Your task to perform on an android device: refresh tabs in the chrome app Image 0: 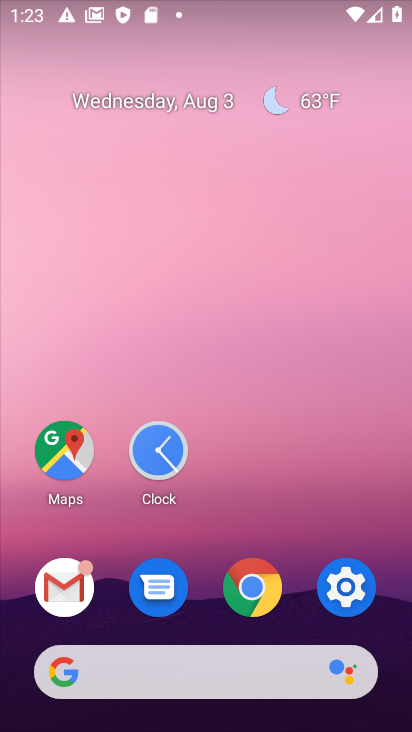
Step 0: click (250, 588)
Your task to perform on an android device: refresh tabs in the chrome app Image 1: 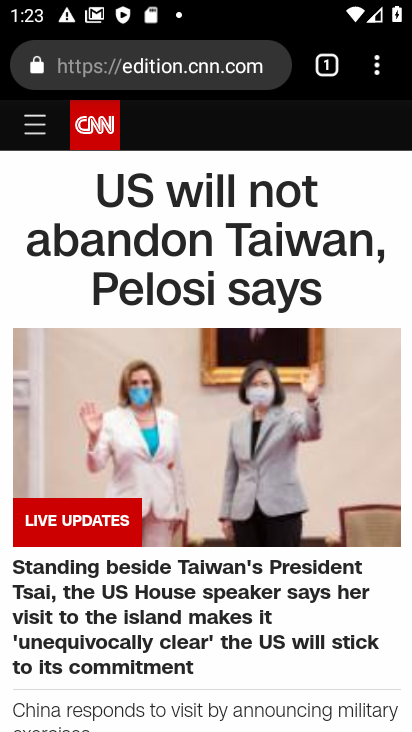
Step 1: click (374, 71)
Your task to perform on an android device: refresh tabs in the chrome app Image 2: 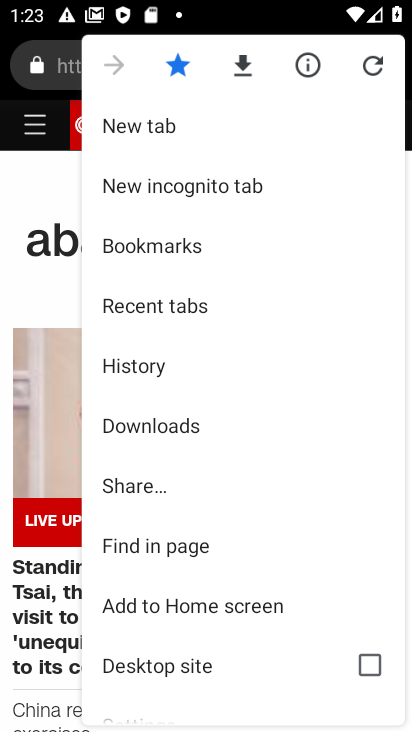
Step 2: click (377, 70)
Your task to perform on an android device: refresh tabs in the chrome app Image 3: 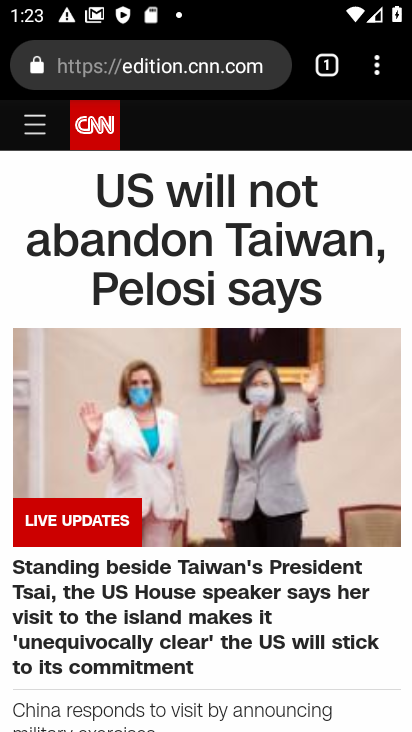
Step 3: task complete